Your task to perform on an android device: Go to wifi settings Image 0: 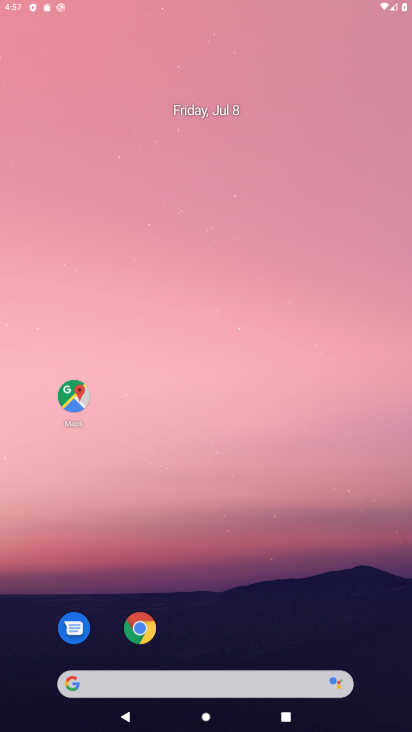
Step 0: press home button
Your task to perform on an android device: Go to wifi settings Image 1: 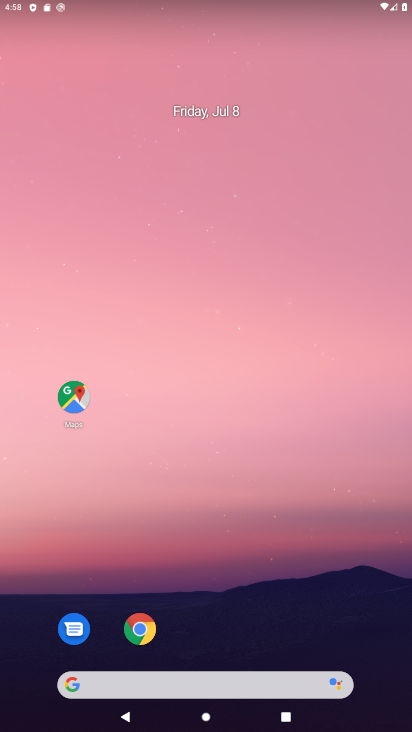
Step 1: drag from (281, 500) to (269, 0)
Your task to perform on an android device: Go to wifi settings Image 2: 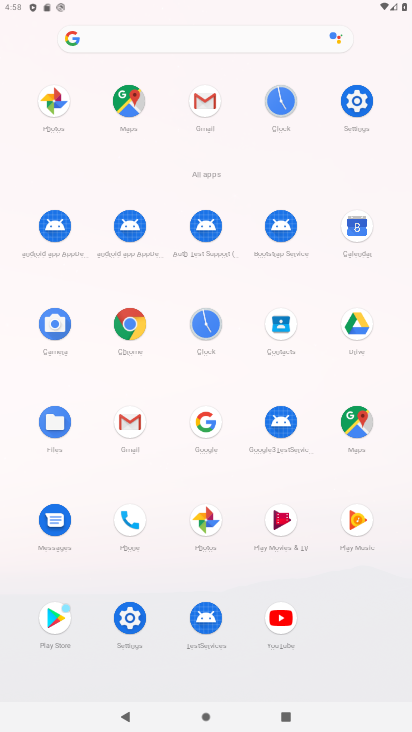
Step 2: click (356, 104)
Your task to perform on an android device: Go to wifi settings Image 3: 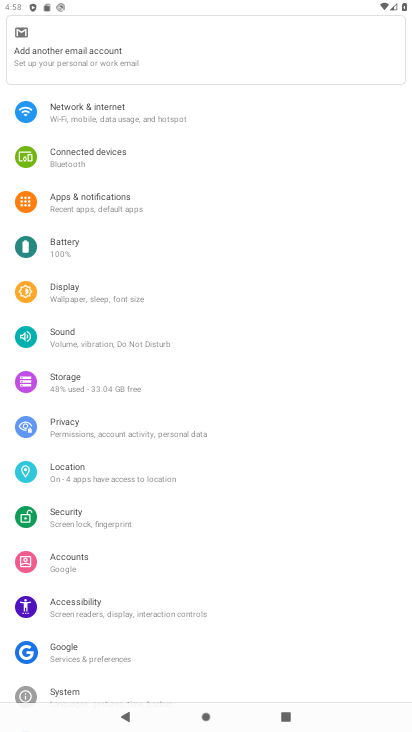
Step 3: click (96, 115)
Your task to perform on an android device: Go to wifi settings Image 4: 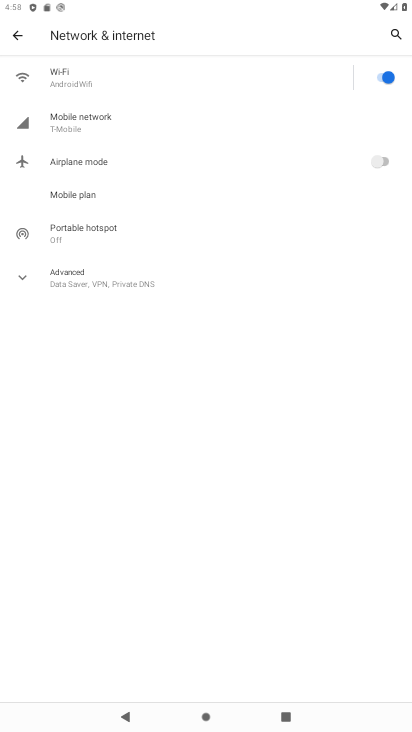
Step 4: click (75, 75)
Your task to perform on an android device: Go to wifi settings Image 5: 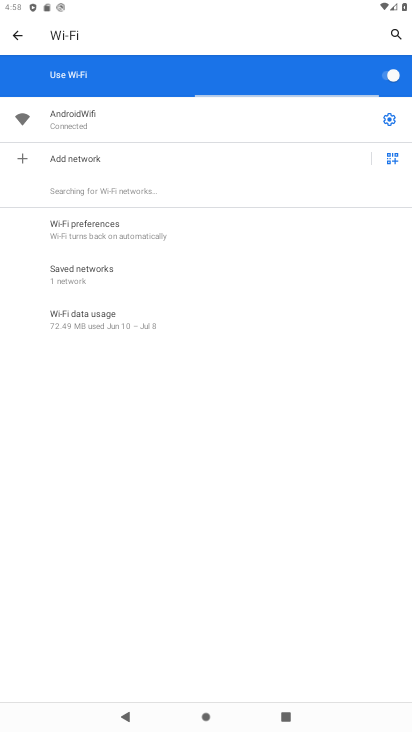
Step 5: task complete